Your task to perform on an android device: Search for bose soundlink mini on ebay.com, select the first entry, and add it to the cart. Image 0: 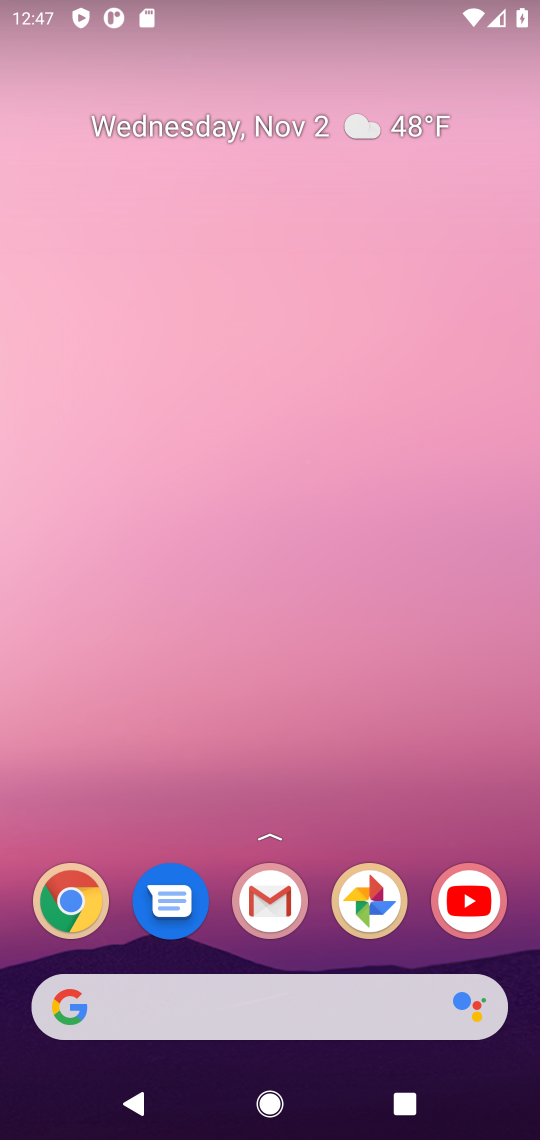
Step 0: drag from (323, 970) to (419, 176)
Your task to perform on an android device: Search for bose soundlink mini on ebay.com, select the first entry, and add it to the cart. Image 1: 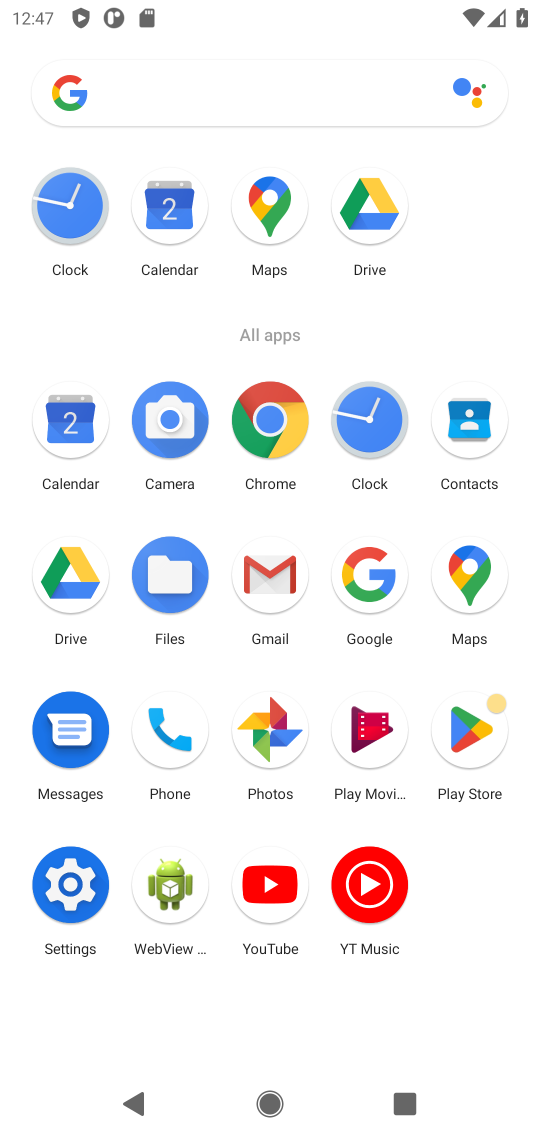
Step 1: click (272, 424)
Your task to perform on an android device: Search for bose soundlink mini on ebay.com, select the first entry, and add it to the cart. Image 2: 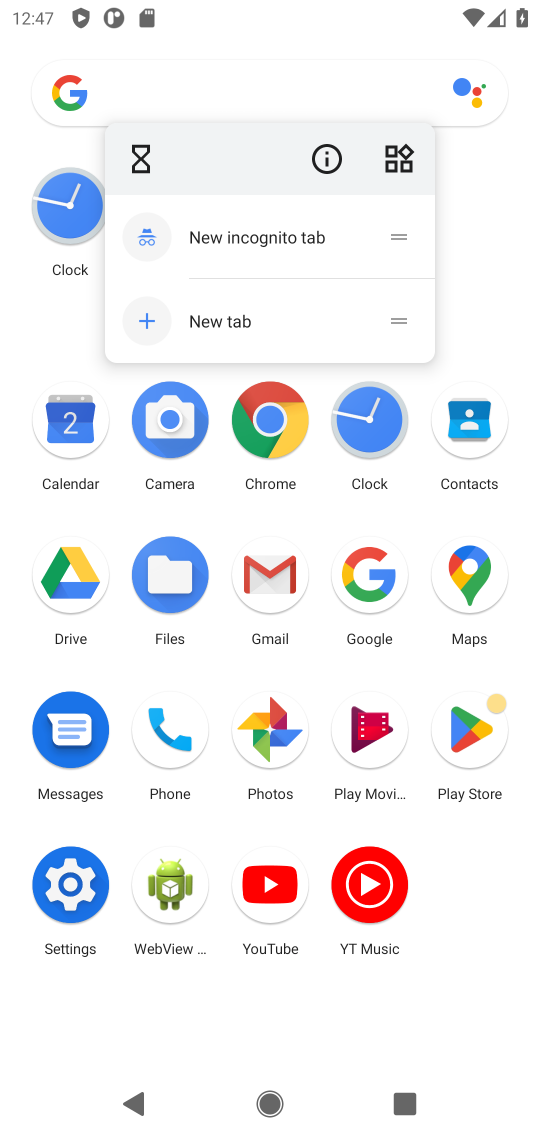
Step 2: click (272, 424)
Your task to perform on an android device: Search for bose soundlink mini on ebay.com, select the first entry, and add it to the cart. Image 3: 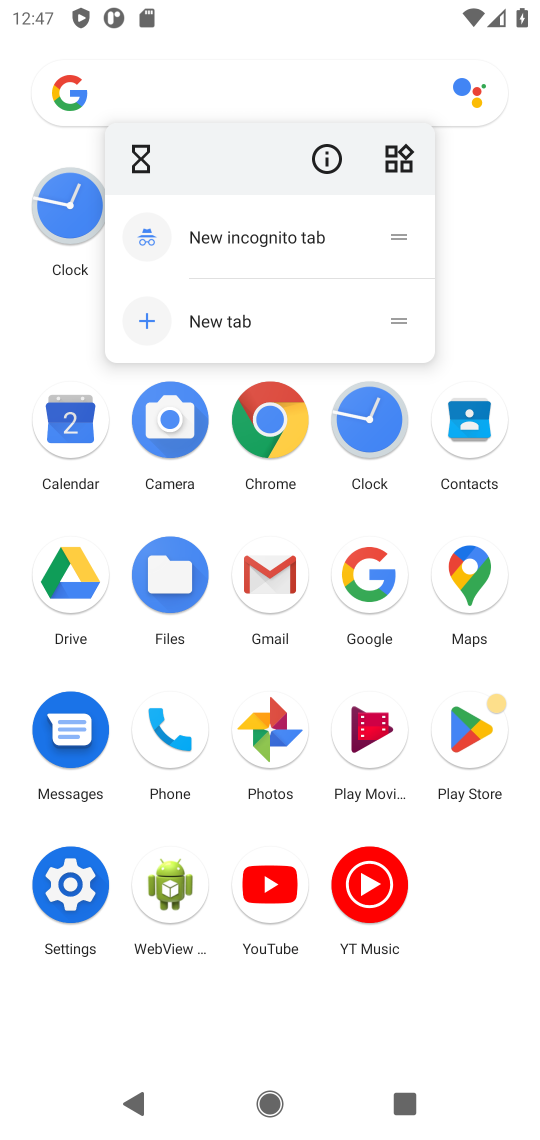
Step 3: click (275, 416)
Your task to perform on an android device: Search for bose soundlink mini on ebay.com, select the first entry, and add it to the cart. Image 4: 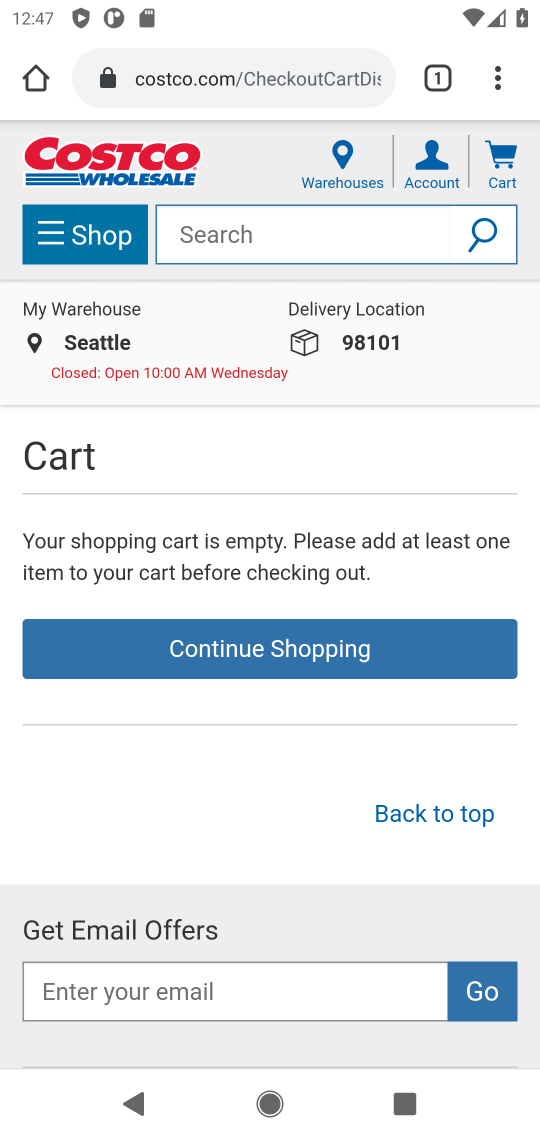
Step 4: click (262, 81)
Your task to perform on an android device: Search for bose soundlink mini on ebay.com, select the first entry, and add it to the cart. Image 5: 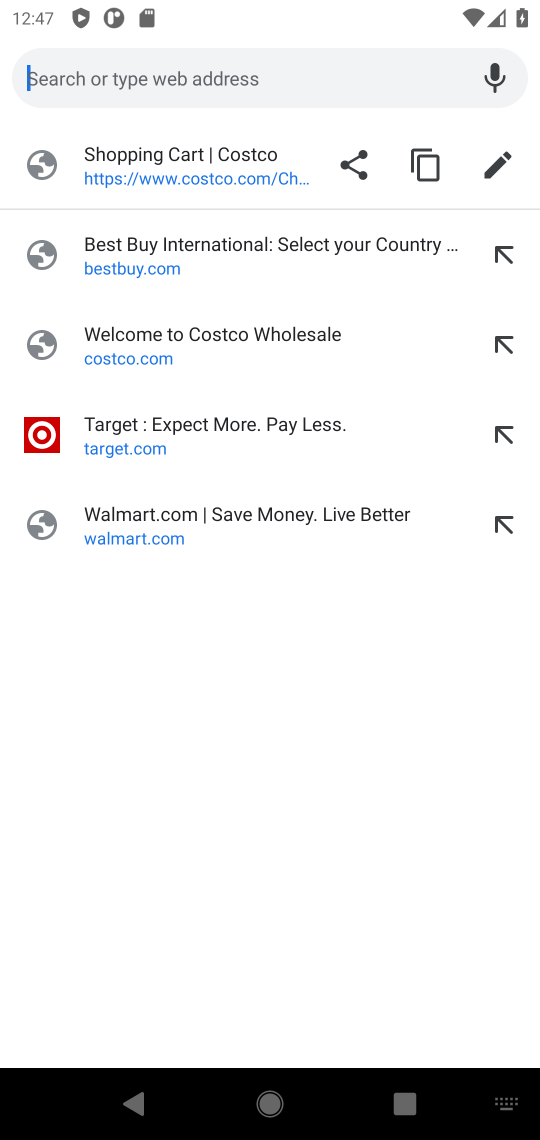
Step 5: type "ebay.com"
Your task to perform on an android device: Search for bose soundlink mini on ebay.com, select the first entry, and add it to the cart. Image 6: 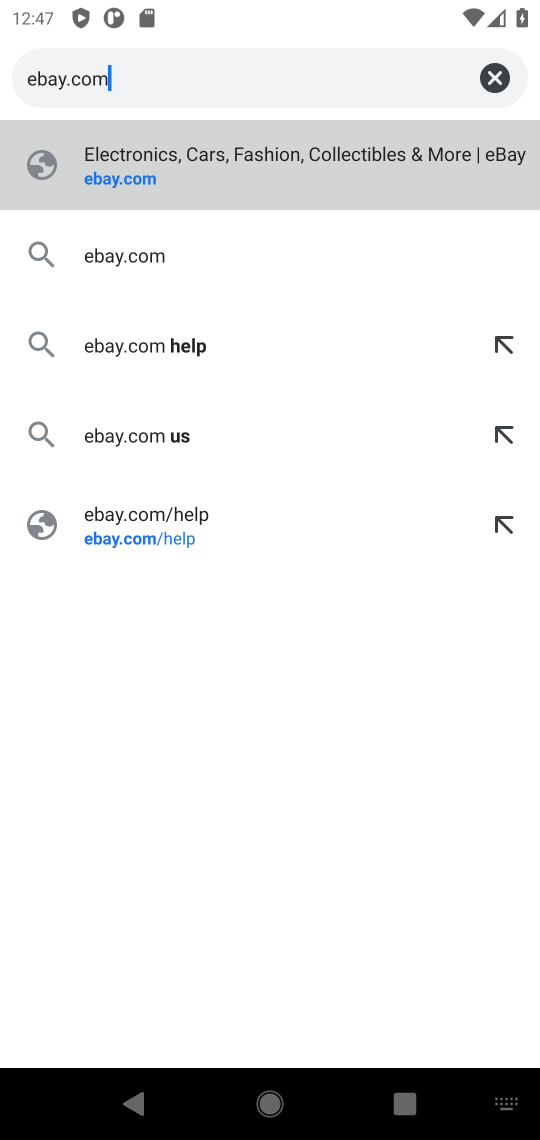
Step 6: press enter
Your task to perform on an android device: Search for bose soundlink mini on ebay.com, select the first entry, and add it to the cart. Image 7: 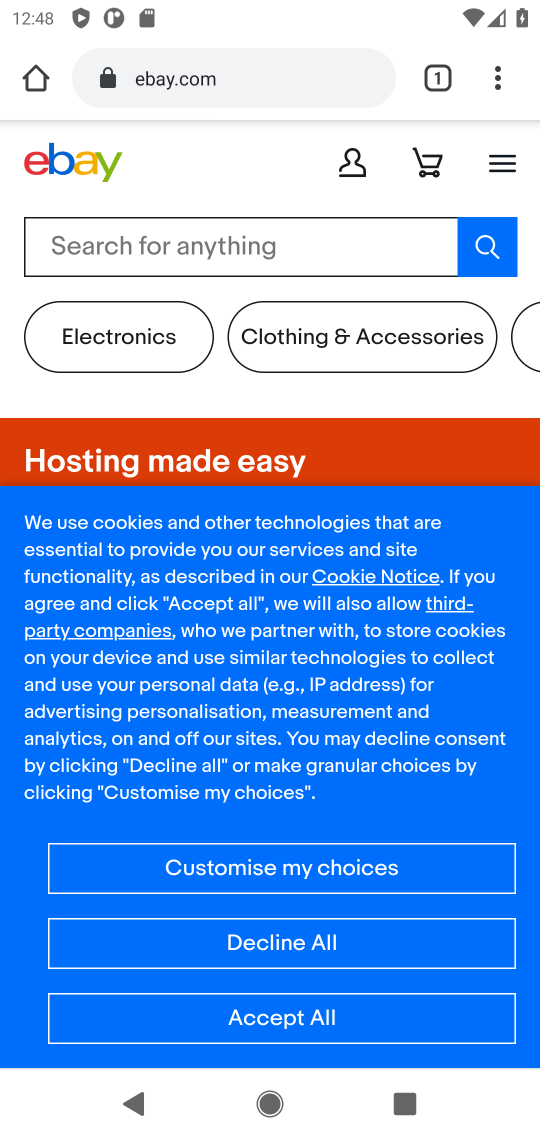
Step 7: click (280, 250)
Your task to perform on an android device: Search for bose soundlink mini on ebay.com, select the first entry, and add it to the cart. Image 8: 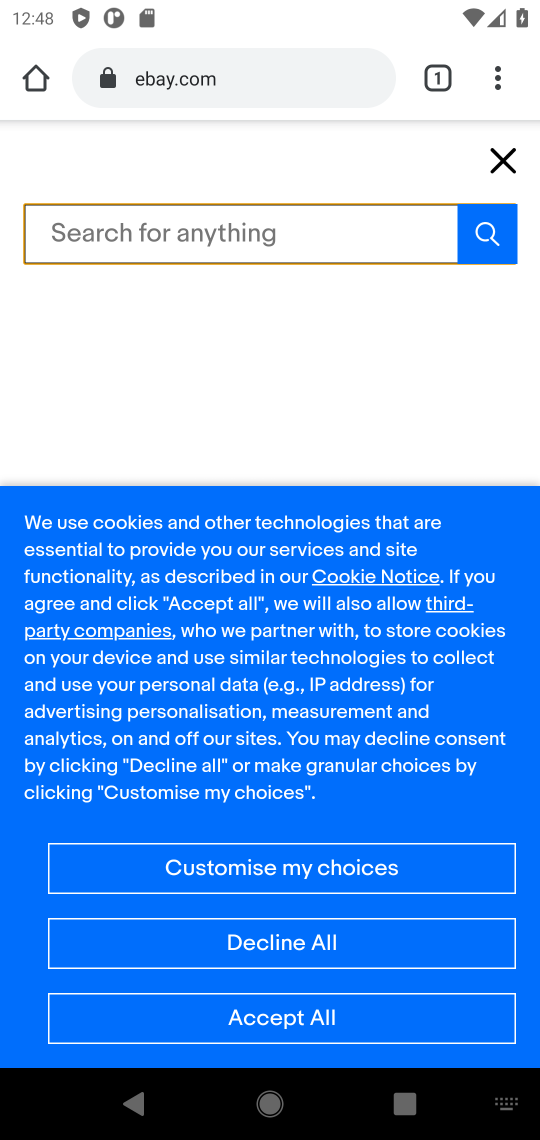
Step 8: type "bose soundlink mini"
Your task to perform on an android device: Search for bose soundlink mini on ebay.com, select the first entry, and add it to the cart. Image 9: 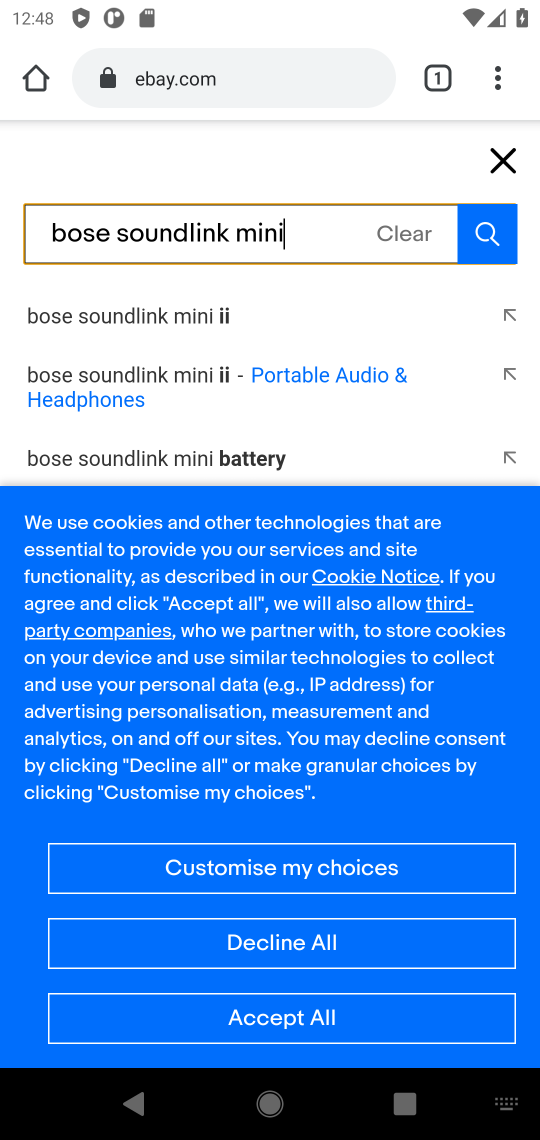
Step 9: press enter
Your task to perform on an android device: Search for bose soundlink mini on ebay.com, select the first entry, and add it to the cart. Image 10: 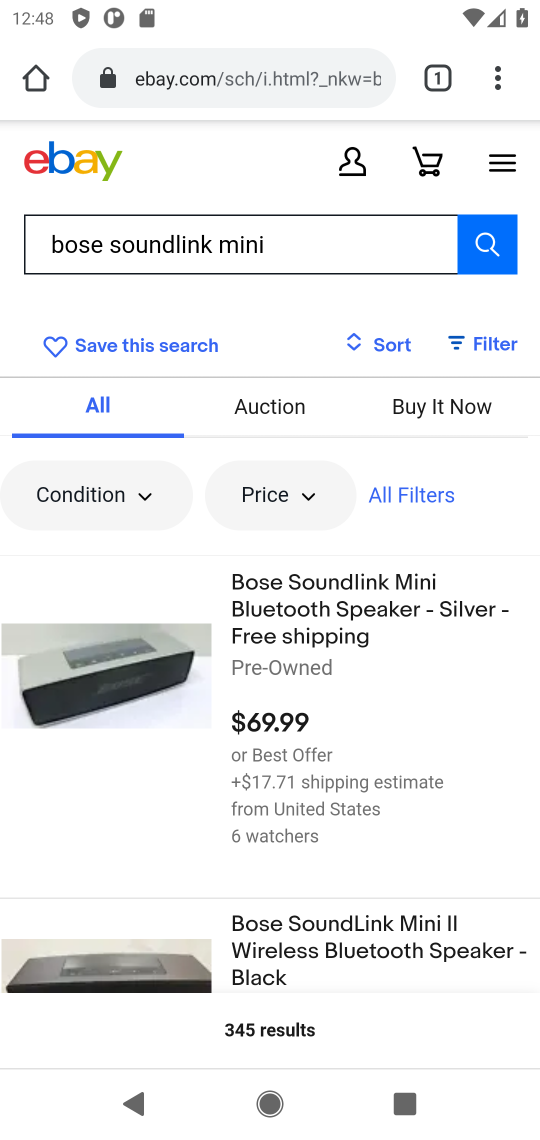
Step 10: click (156, 707)
Your task to perform on an android device: Search for bose soundlink mini on ebay.com, select the first entry, and add it to the cart. Image 11: 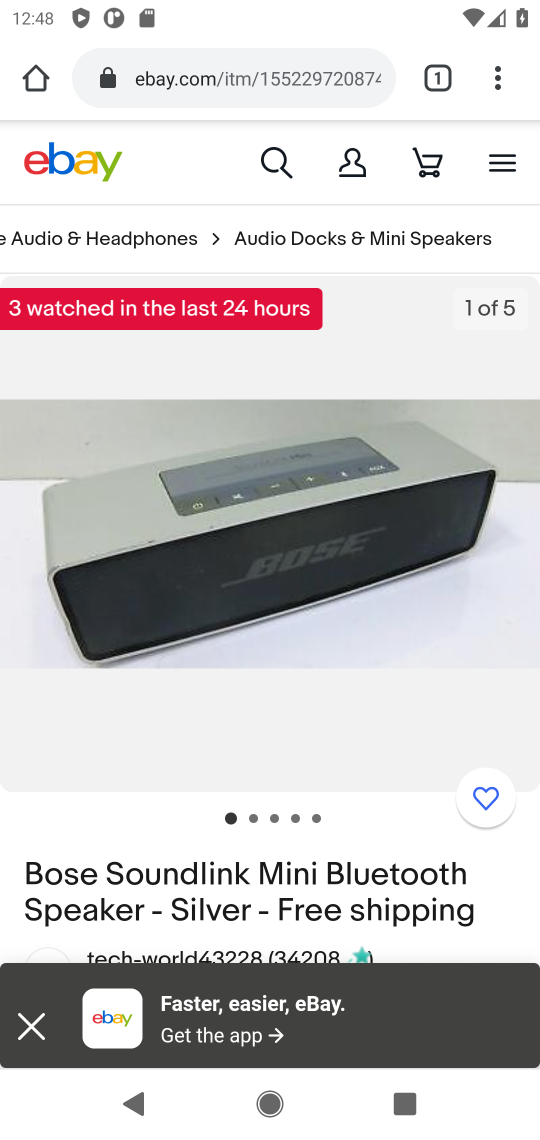
Step 11: drag from (346, 881) to (243, 131)
Your task to perform on an android device: Search for bose soundlink mini on ebay.com, select the first entry, and add it to the cart. Image 12: 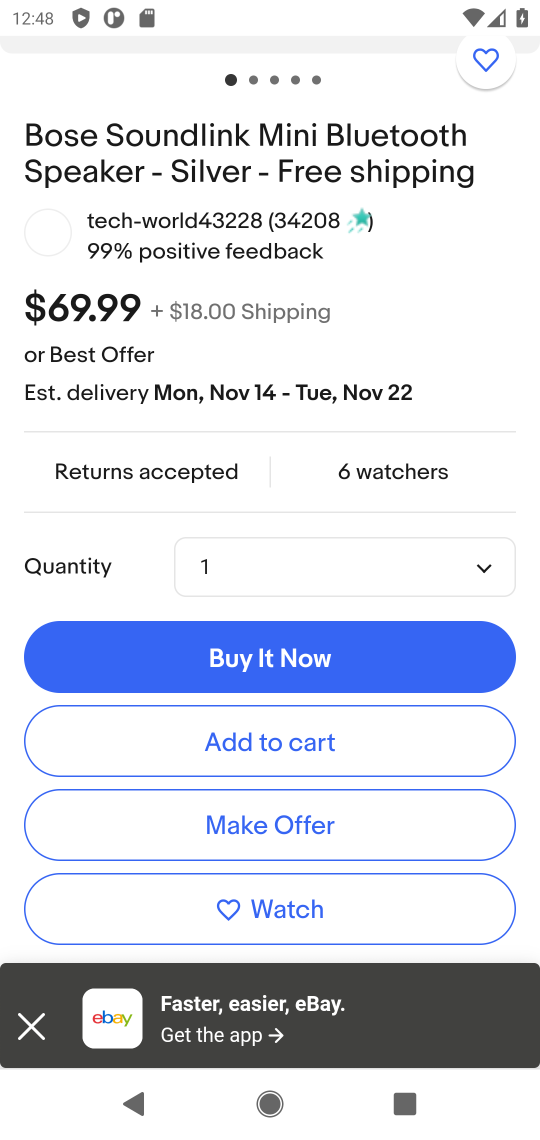
Step 12: click (182, 745)
Your task to perform on an android device: Search for bose soundlink mini on ebay.com, select the first entry, and add it to the cart. Image 13: 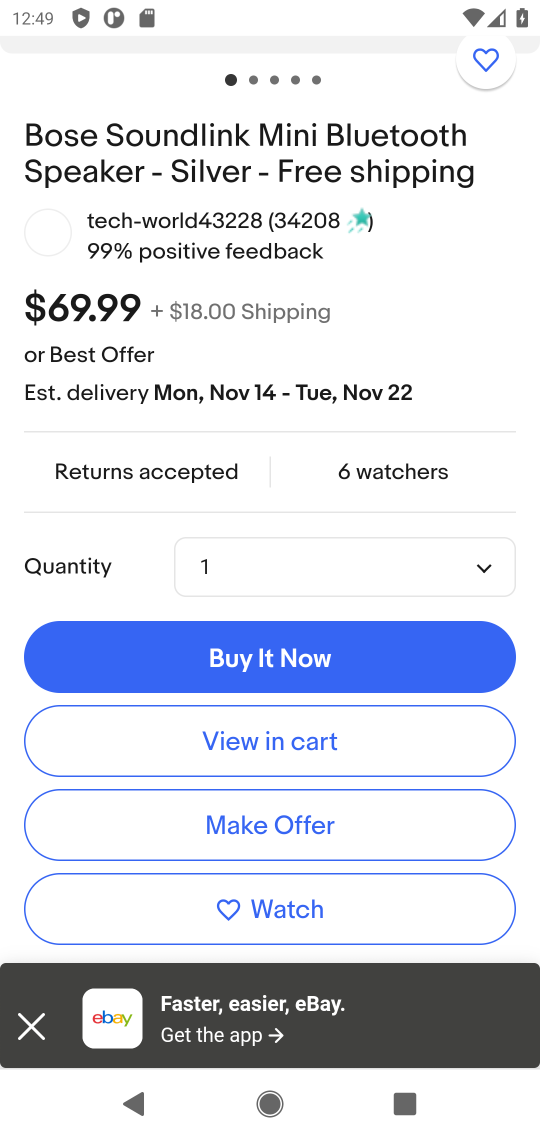
Step 13: task complete